Your task to perform on an android device: turn notification dots on Image 0: 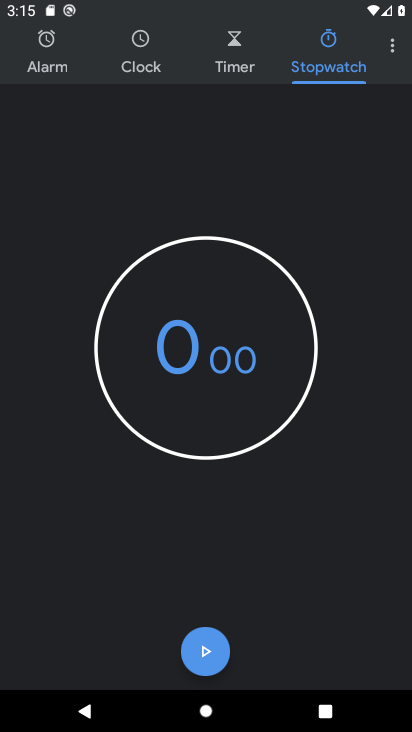
Step 0: press home button
Your task to perform on an android device: turn notification dots on Image 1: 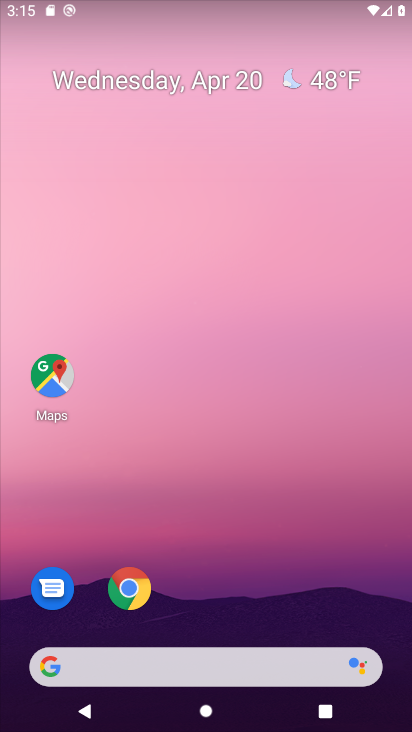
Step 1: drag from (308, 536) to (368, 92)
Your task to perform on an android device: turn notification dots on Image 2: 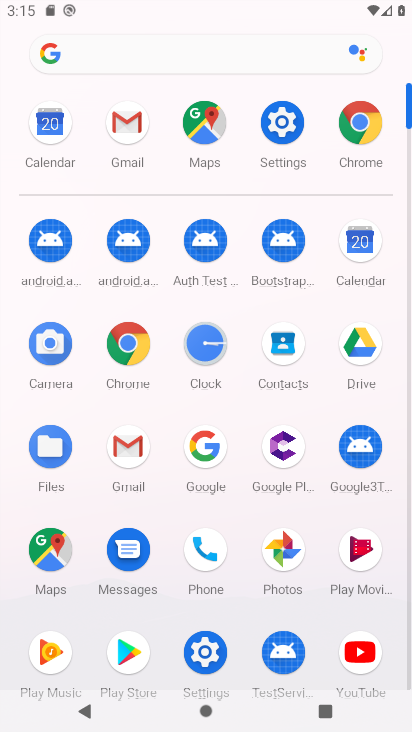
Step 2: click (282, 113)
Your task to perform on an android device: turn notification dots on Image 3: 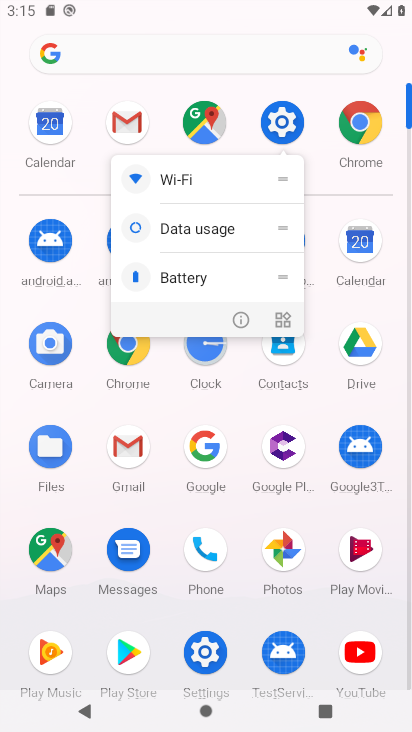
Step 3: click (287, 126)
Your task to perform on an android device: turn notification dots on Image 4: 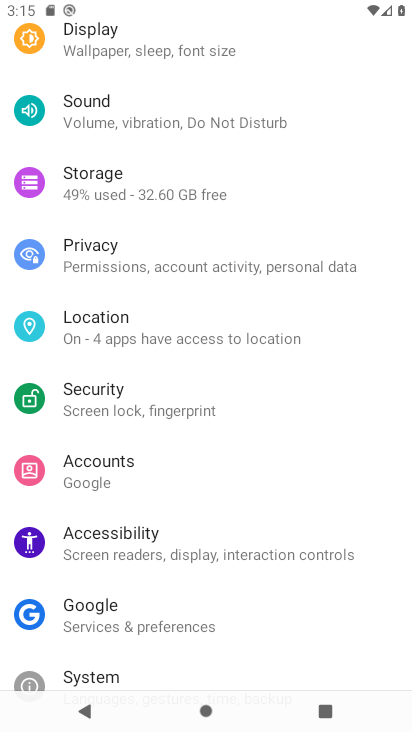
Step 4: drag from (339, 575) to (348, 348)
Your task to perform on an android device: turn notification dots on Image 5: 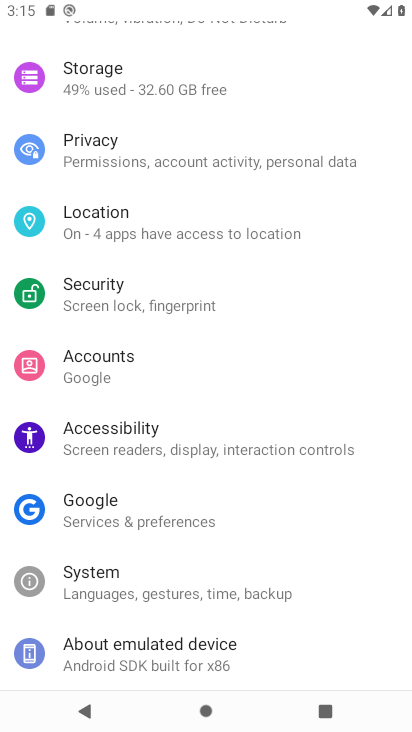
Step 5: drag from (351, 318) to (338, 542)
Your task to perform on an android device: turn notification dots on Image 6: 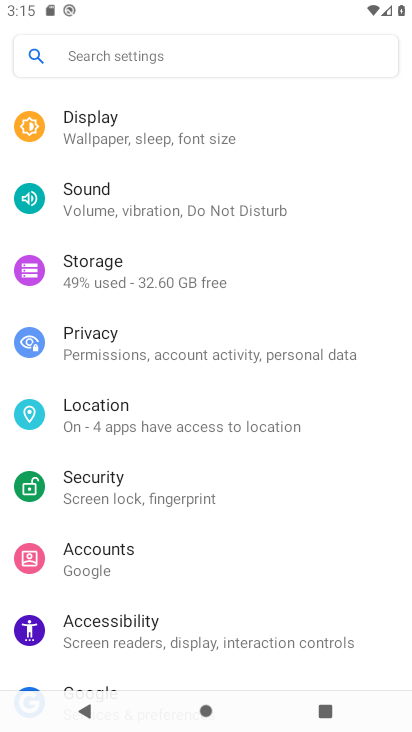
Step 6: drag from (367, 290) to (364, 496)
Your task to perform on an android device: turn notification dots on Image 7: 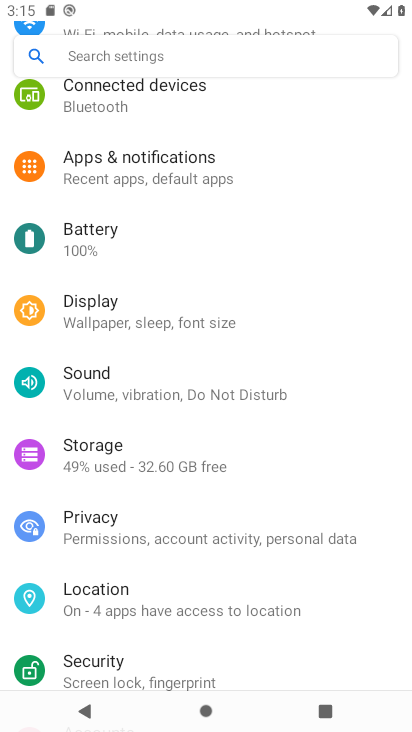
Step 7: drag from (354, 234) to (360, 427)
Your task to perform on an android device: turn notification dots on Image 8: 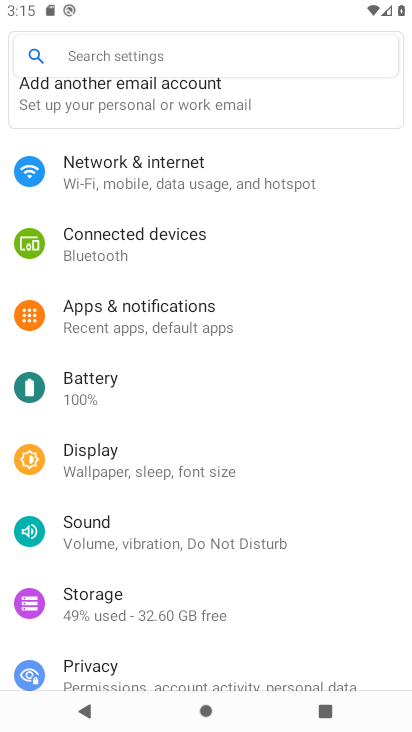
Step 8: drag from (346, 211) to (348, 391)
Your task to perform on an android device: turn notification dots on Image 9: 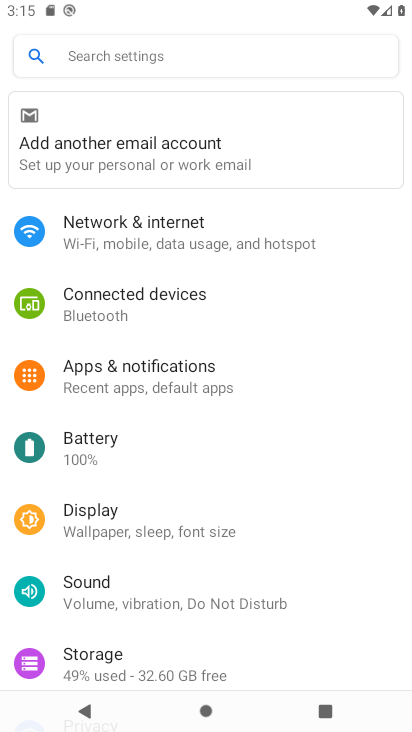
Step 9: click (178, 371)
Your task to perform on an android device: turn notification dots on Image 10: 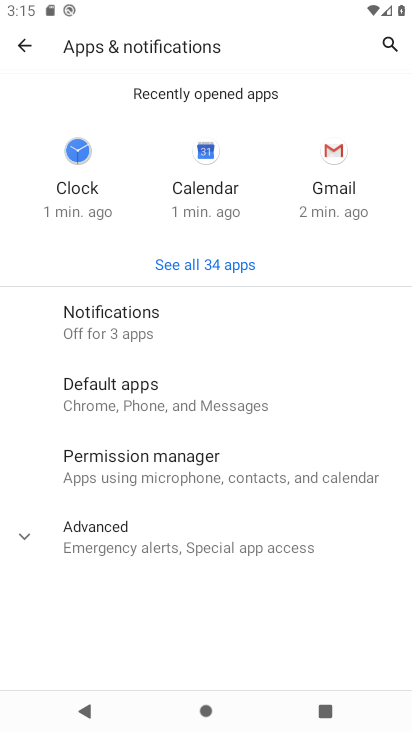
Step 10: click (237, 547)
Your task to perform on an android device: turn notification dots on Image 11: 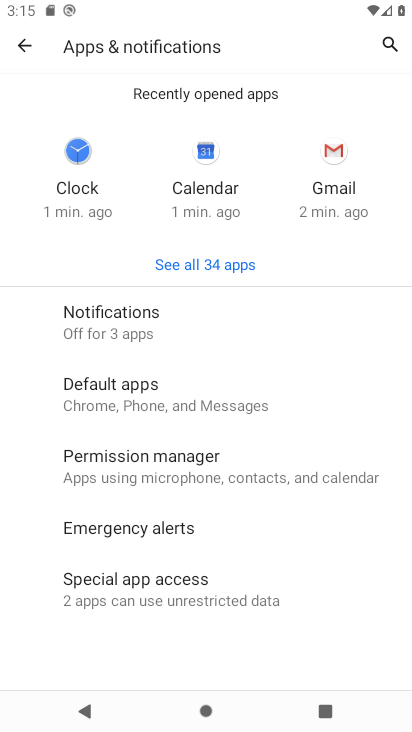
Step 11: click (101, 321)
Your task to perform on an android device: turn notification dots on Image 12: 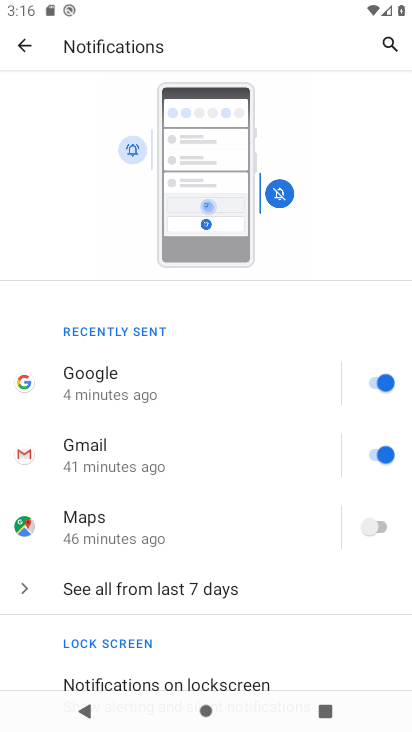
Step 12: drag from (279, 572) to (296, 361)
Your task to perform on an android device: turn notification dots on Image 13: 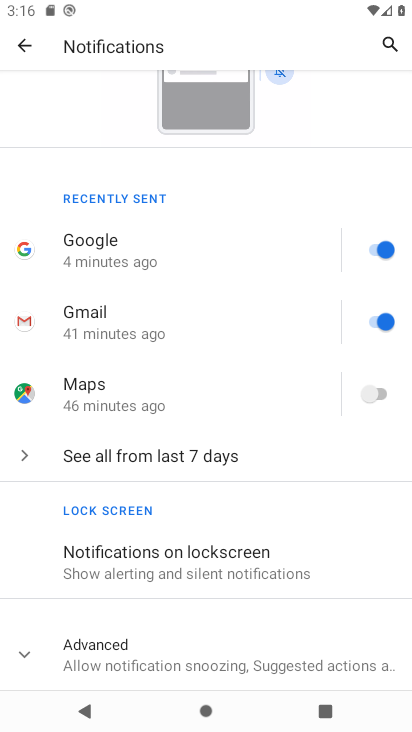
Step 13: click (166, 656)
Your task to perform on an android device: turn notification dots on Image 14: 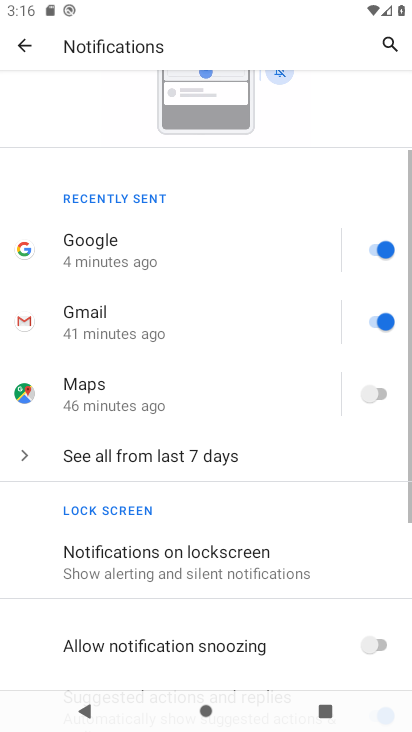
Step 14: drag from (311, 609) to (311, 342)
Your task to perform on an android device: turn notification dots on Image 15: 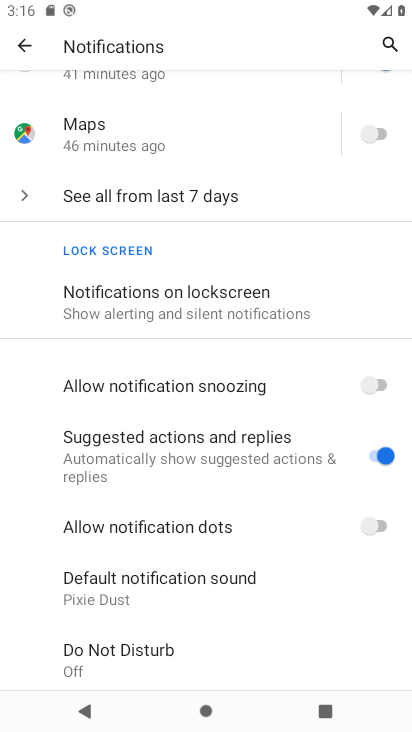
Step 15: click (372, 528)
Your task to perform on an android device: turn notification dots on Image 16: 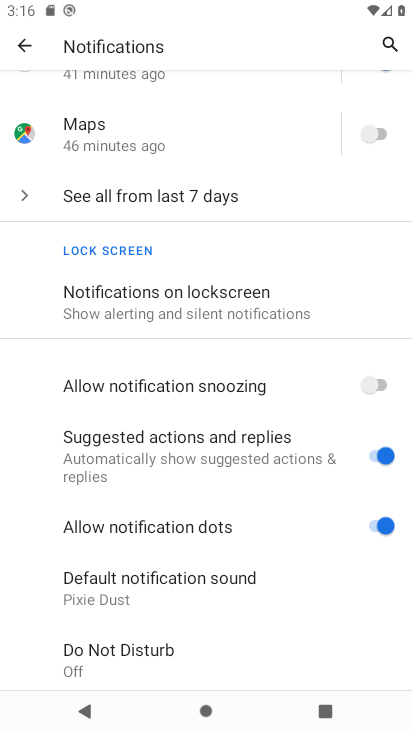
Step 16: task complete